Your task to perform on an android device: turn off improve location accuracy Image 0: 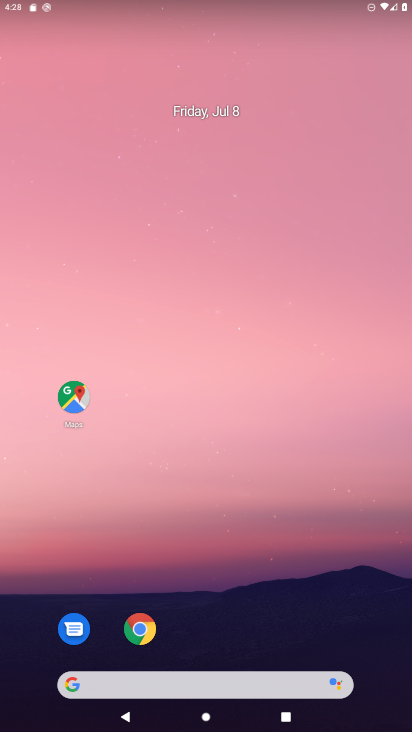
Step 0: drag from (324, 632) to (289, 262)
Your task to perform on an android device: turn off improve location accuracy Image 1: 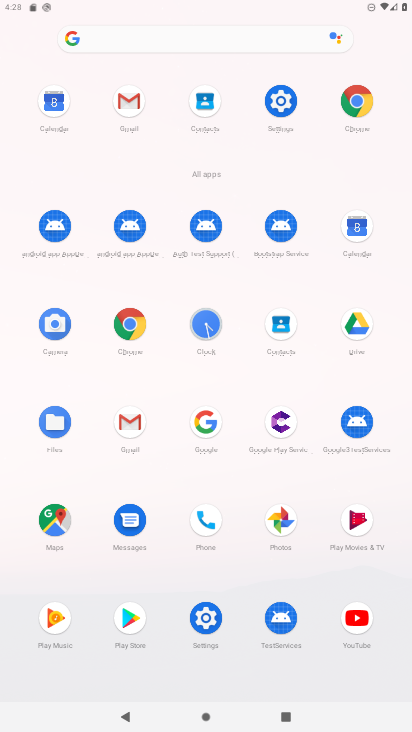
Step 1: click (276, 99)
Your task to perform on an android device: turn off improve location accuracy Image 2: 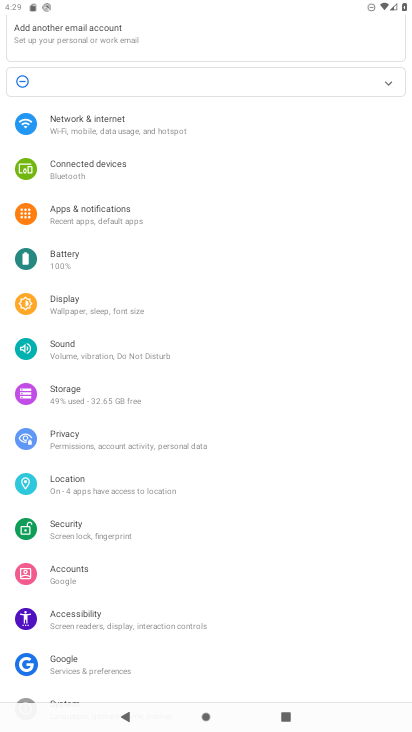
Step 2: click (142, 472)
Your task to perform on an android device: turn off improve location accuracy Image 3: 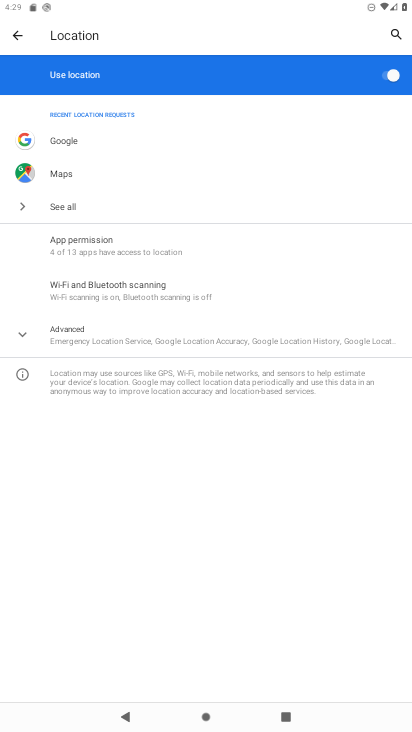
Step 3: click (56, 328)
Your task to perform on an android device: turn off improve location accuracy Image 4: 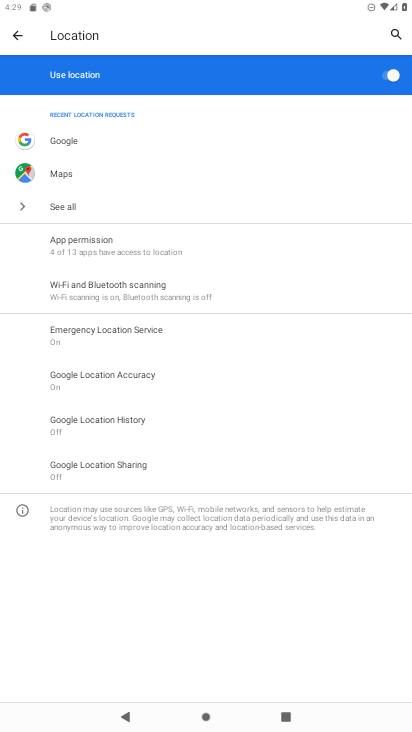
Step 4: click (176, 369)
Your task to perform on an android device: turn off improve location accuracy Image 5: 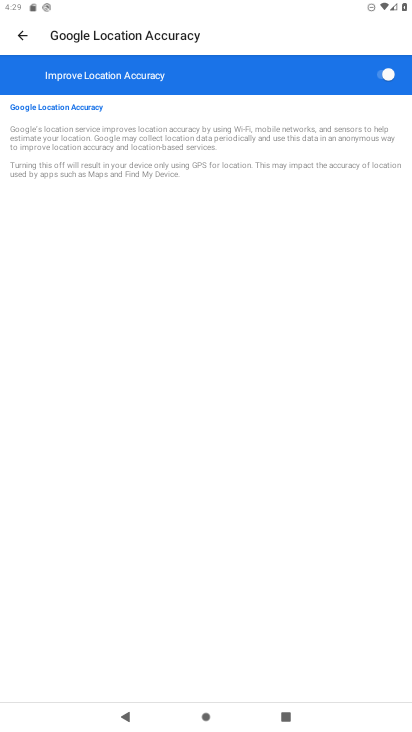
Step 5: click (367, 83)
Your task to perform on an android device: turn off improve location accuracy Image 6: 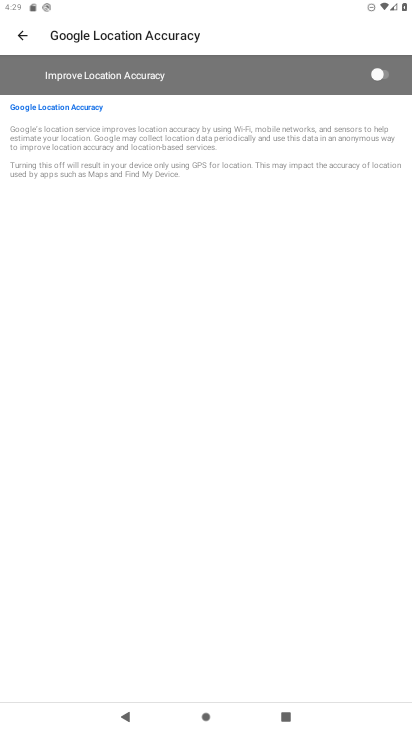
Step 6: task complete